Your task to perform on an android device: choose inbox layout in the gmail app Image 0: 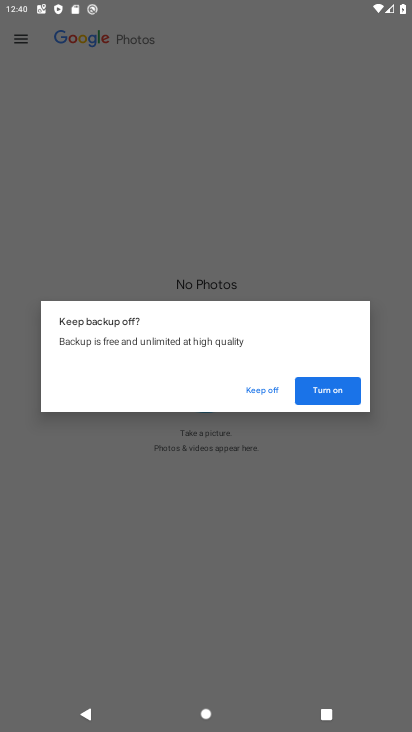
Step 0: press back button
Your task to perform on an android device: choose inbox layout in the gmail app Image 1: 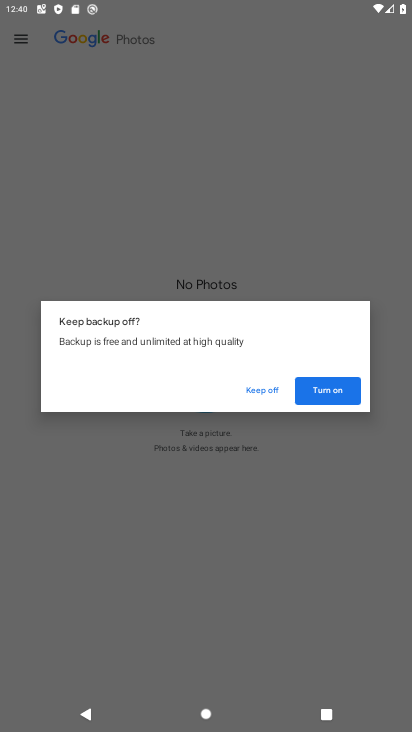
Step 1: press home button
Your task to perform on an android device: choose inbox layout in the gmail app Image 2: 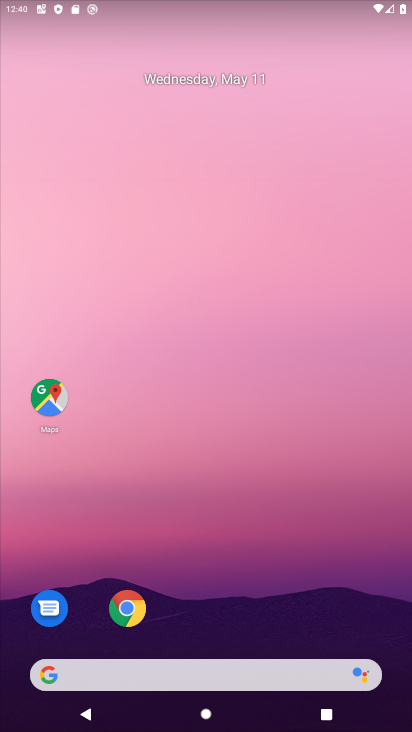
Step 2: drag from (233, 583) to (329, 110)
Your task to perform on an android device: choose inbox layout in the gmail app Image 3: 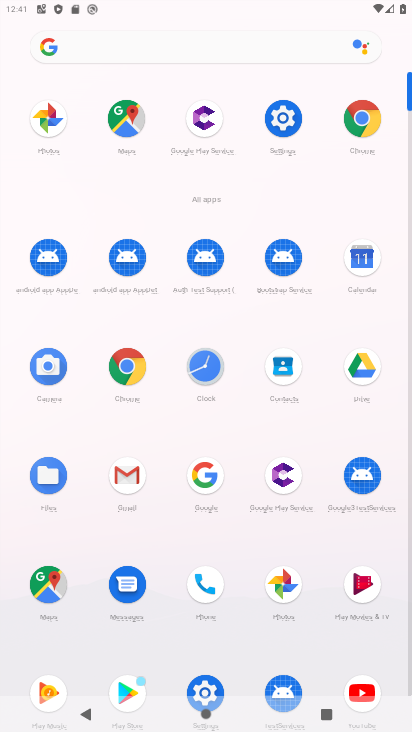
Step 3: click (138, 479)
Your task to perform on an android device: choose inbox layout in the gmail app Image 4: 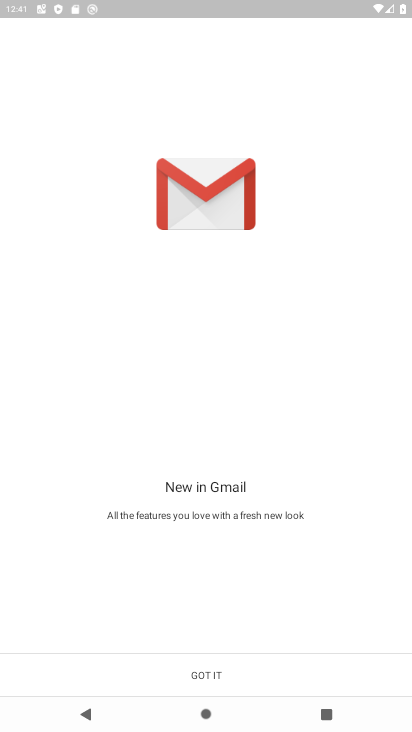
Step 4: click (235, 688)
Your task to perform on an android device: choose inbox layout in the gmail app Image 5: 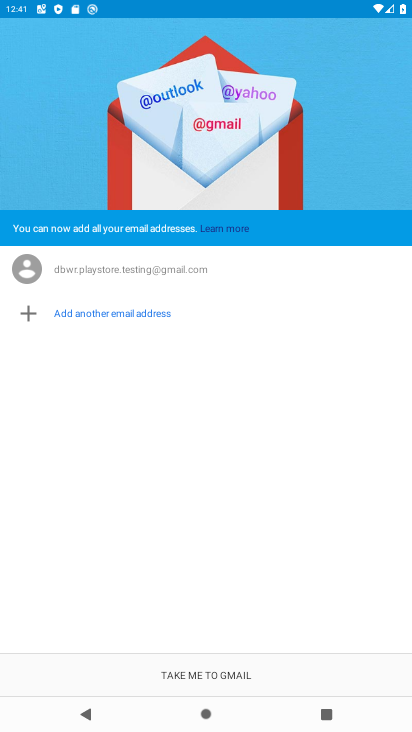
Step 5: click (235, 685)
Your task to perform on an android device: choose inbox layout in the gmail app Image 6: 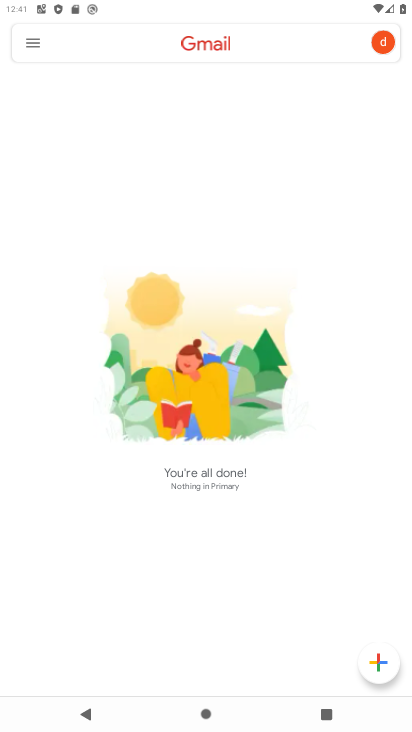
Step 6: click (39, 47)
Your task to perform on an android device: choose inbox layout in the gmail app Image 7: 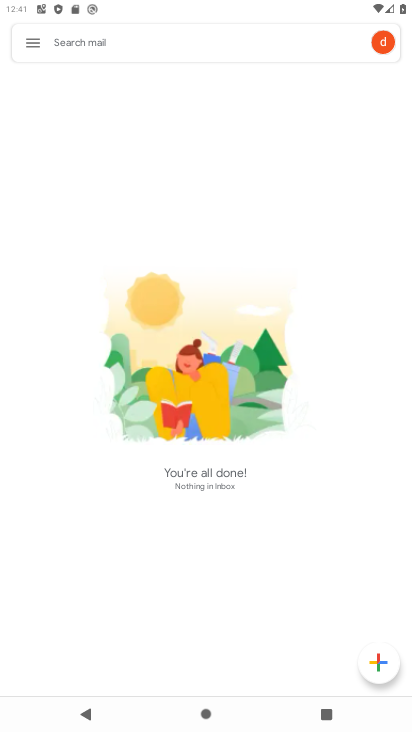
Step 7: click (35, 35)
Your task to perform on an android device: choose inbox layout in the gmail app Image 8: 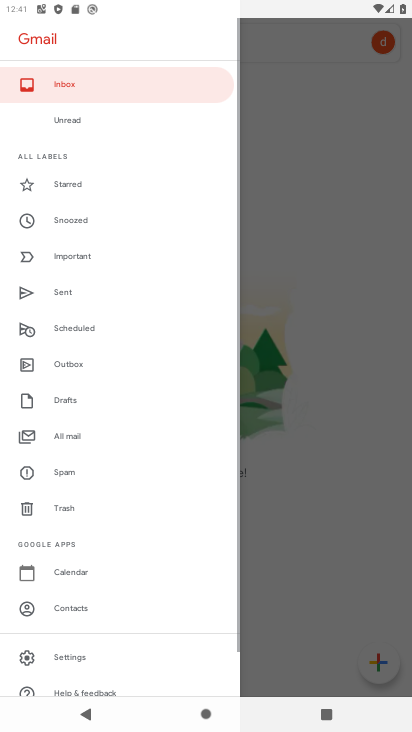
Step 8: drag from (92, 583) to (165, 250)
Your task to perform on an android device: choose inbox layout in the gmail app Image 9: 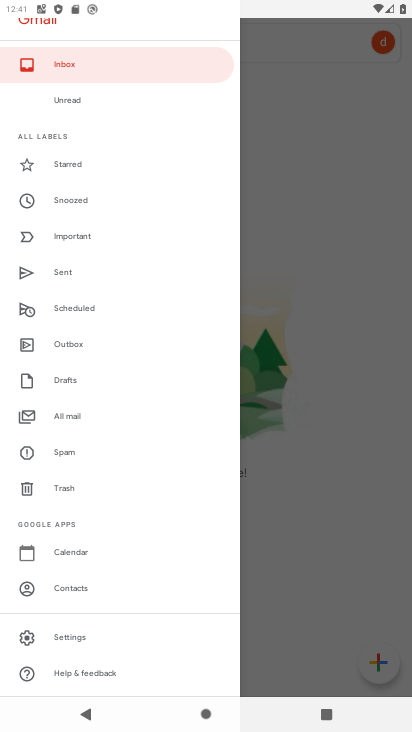
Step 9: click (126, 642)
Your task to perform on an android device: choose inbox layout in the gmail app Image 10: 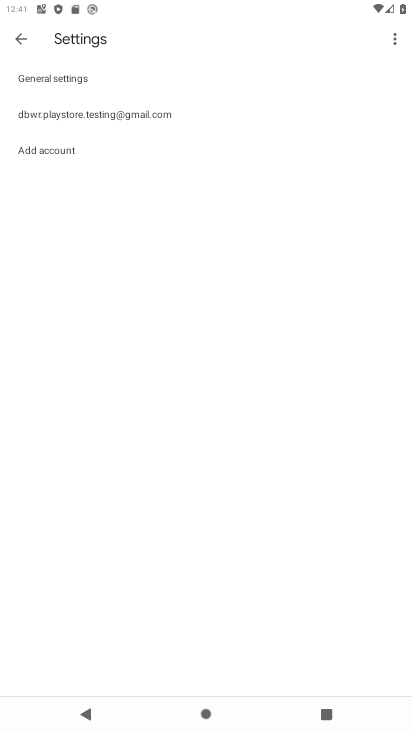
Step 10: click (161, 113)
Your task to perform on an android device: choose inbox layout in the gmail app Image 11: 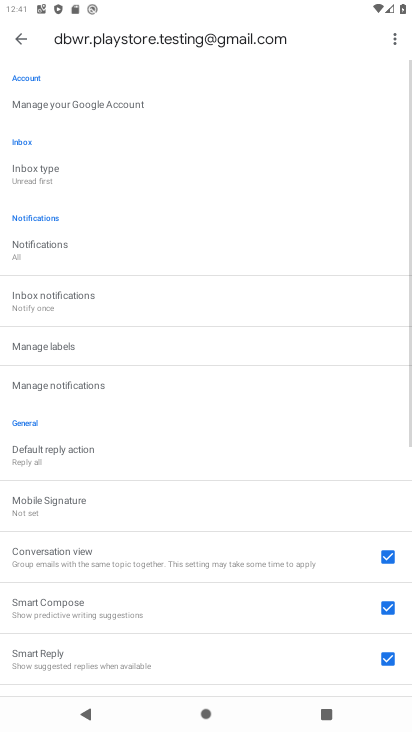
Step 11: click (125, 179)
Your task to perform on an android device: choose inbox layout in the gmail app Image 12: 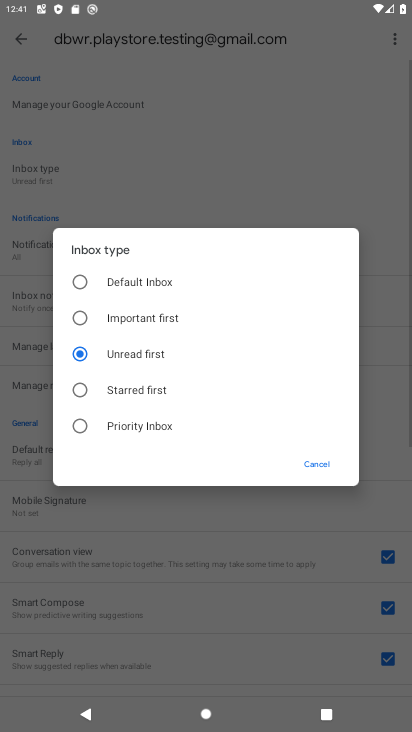
Step 12: click (181, 429)
Your task to perform on an android device: choose inbox layout in the gmail app Image 13: 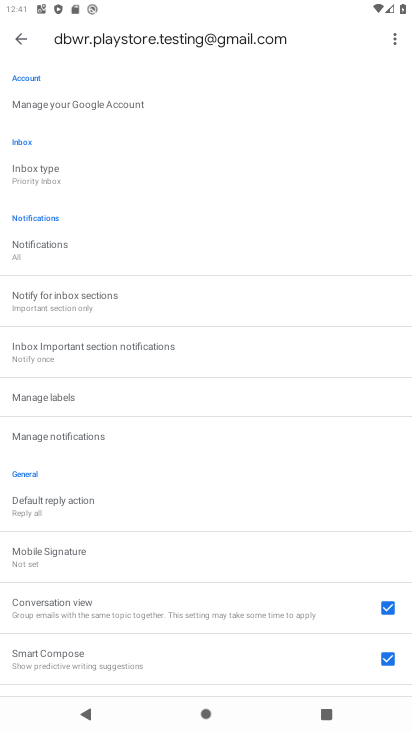
Step 13: task complete